Your task to perform on an android device: stop showing notifications on the lock screen Image 0: 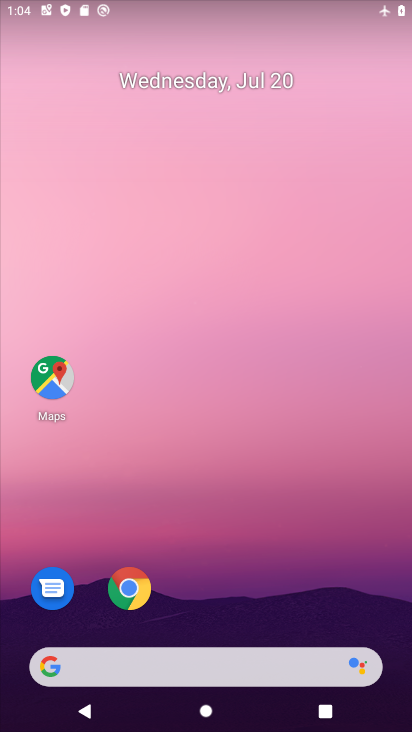
Step 0: drag from (388, 678) to (297, 8)
Your task to perform on an android device: stop showing notifications on the lock screen Image 1: 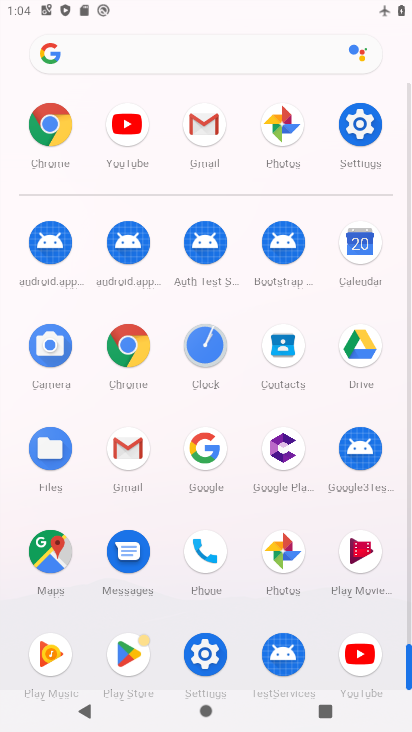
Step 1: click (200, 651)
Your task to perform on an android device: stop showing notifications on the lock screen Image 2: 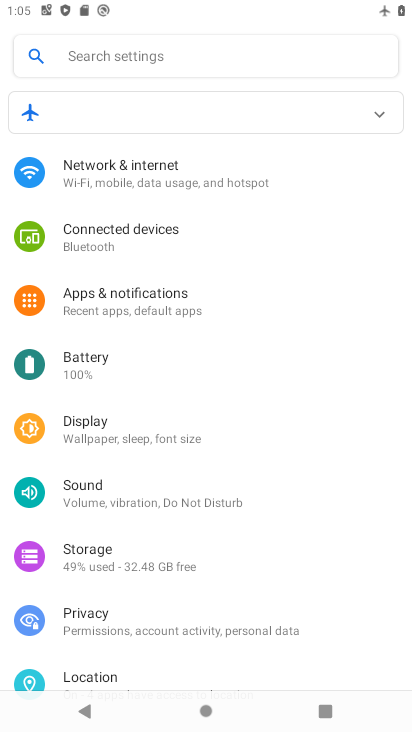
Step 2: click (99, 295)
Your task to perform on an android device: stop showing notifications on the lock screen Image 3: 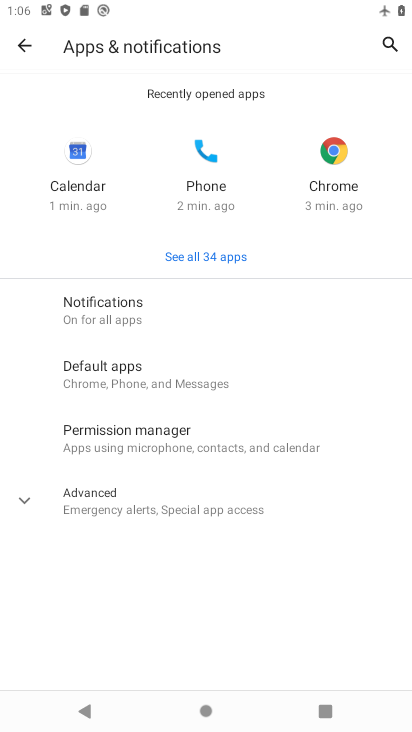
Step 3: click (104, 312)
Your task to perform on an android device: stop showing notifications on the lock screen Image 4: 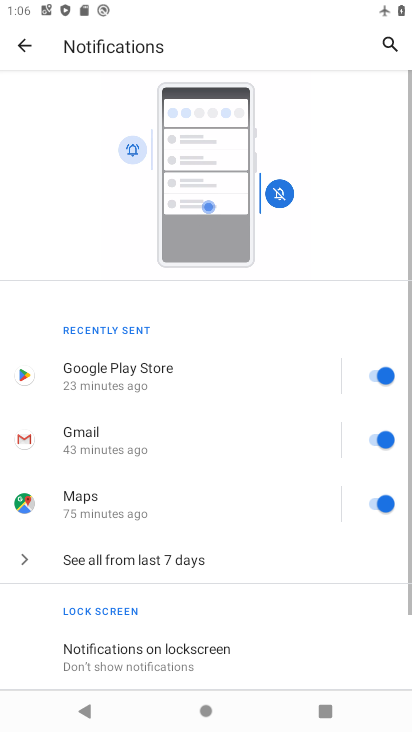
Step 4: click (161, 646)
Your task to perform on an android device: stop showing notifications on the lock screen Image 5: 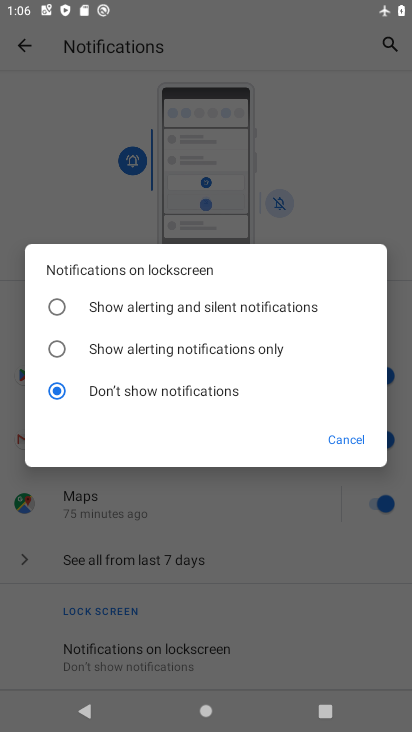
Step 5: task complete